Your task to perform on an android device: turn off priority inbox in the gmail app Image 0: 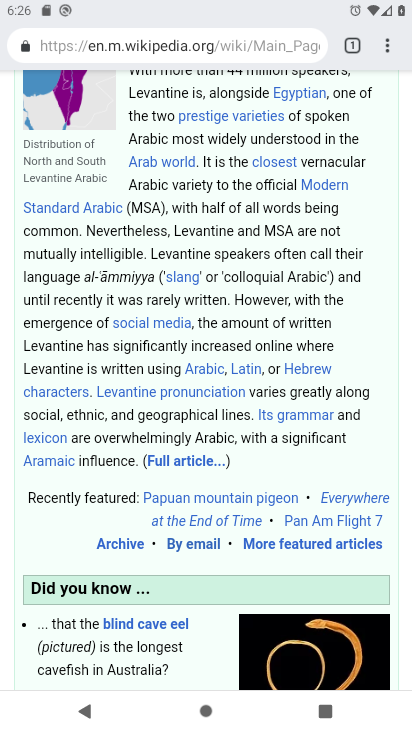
Step 0: press home button
Your task to perform on an android device: turn off priority inbox in the gmail app Image 1: 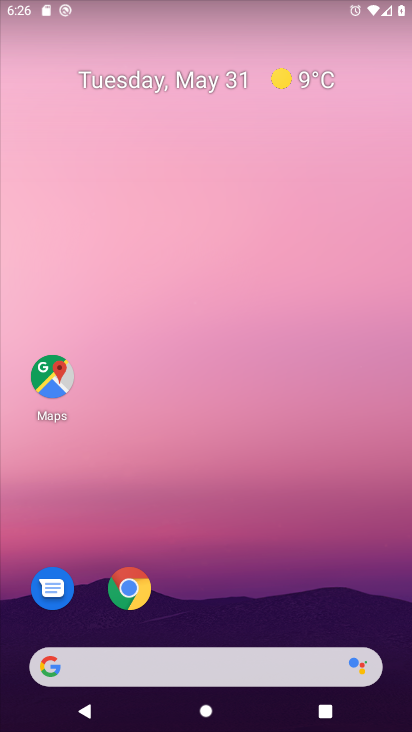
Step 1: drag from (200, 604) to (187, 278)
Your task to perform on an android device: turn off priority inbox in the gmail app Image 2: 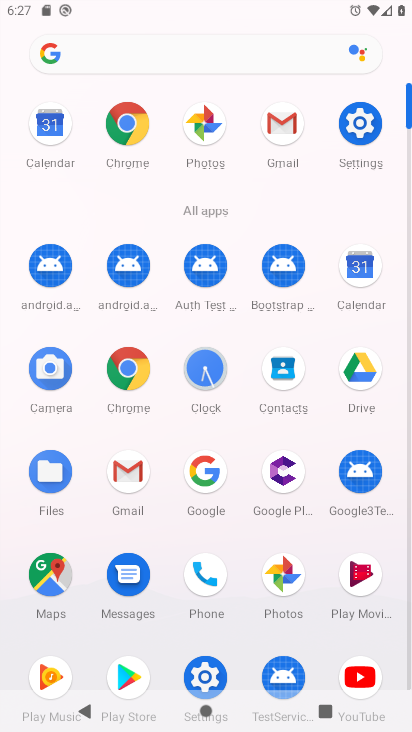
Step 2: click (130, 473)
Your task to perform on an android device: turn off priority inbox in the gmail app Image 3: 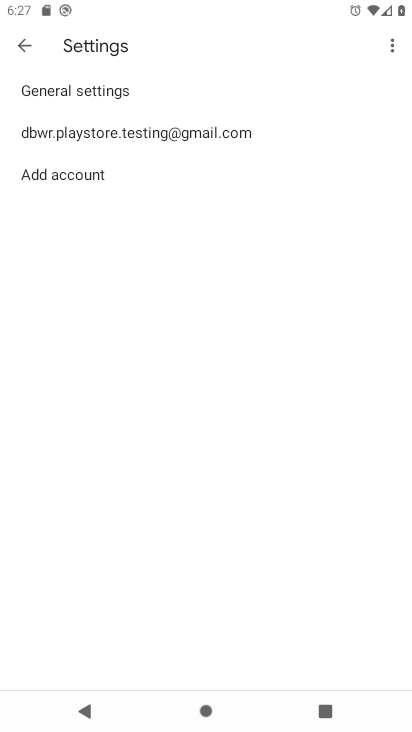
Step 3: click (136, 141)
Your task to perform on an android device: turn off priority inbox in the gmail app Image 4: 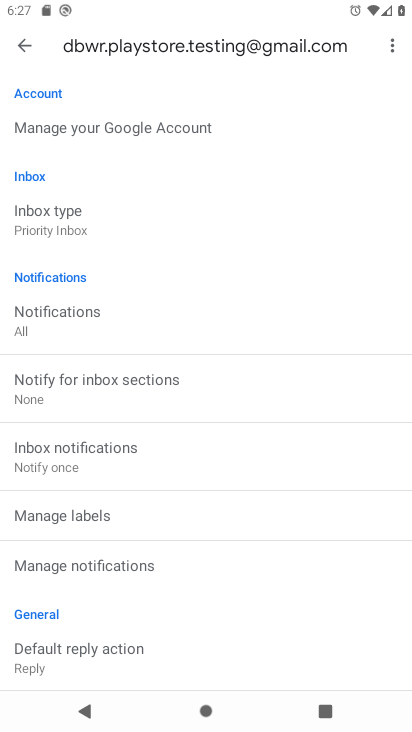
Step 4: click (40, 230)
Your task to perform on an android device: turn off priority inbox in the gmail app Image 5: 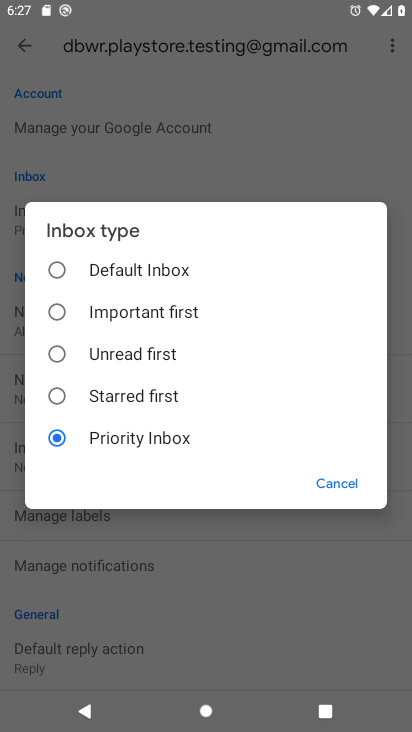
Step 5: click (57, 275)
Your task to perform on an android device: turn off priority inbox in the gmail app Image 6: 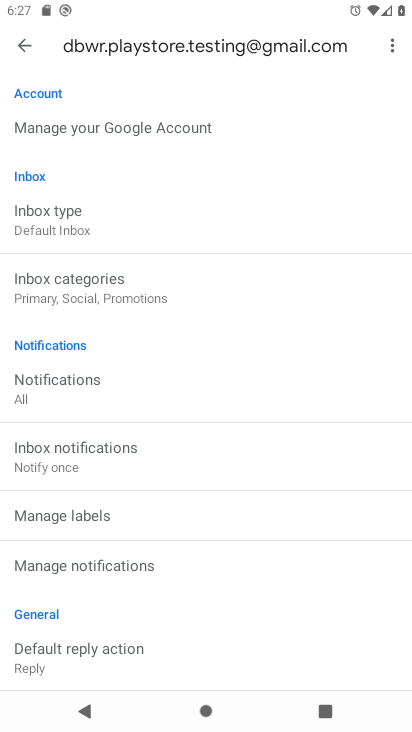
Step 6: task complete